Your task to perform on an android device: Show me popular games on the Play Store Image 0: 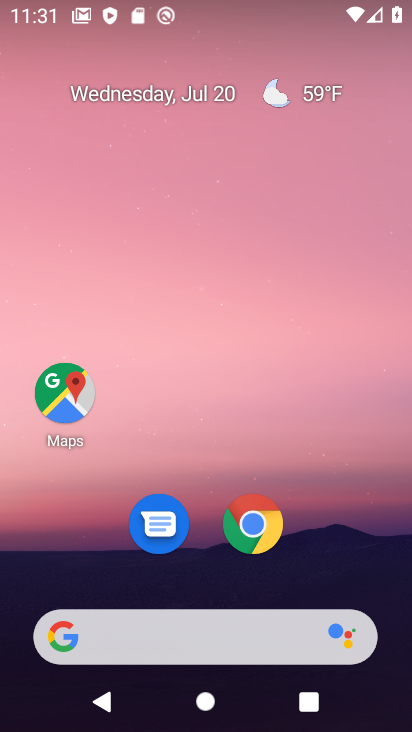
Step 0: press home button
Your task to perform on an android device: Show me popular games on the Play Store Image 1: 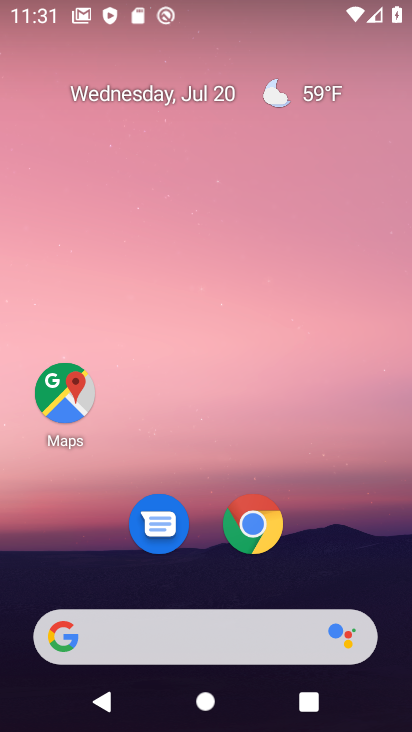
Step 1: drag from (199, 630) to (261, 34)
Your task to perform on an android device: Show me popular games on the Play Store Image 2: 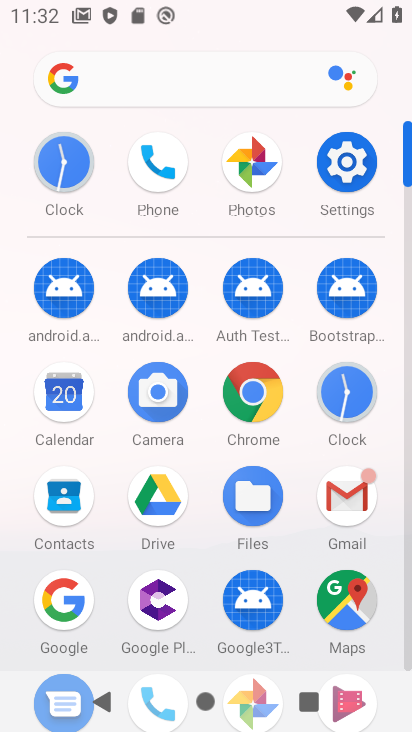
Step 2: drag from (214, 563) to (247, 132)
Your task to perform on an android device: Show me popular games on the Play Store Image 3: 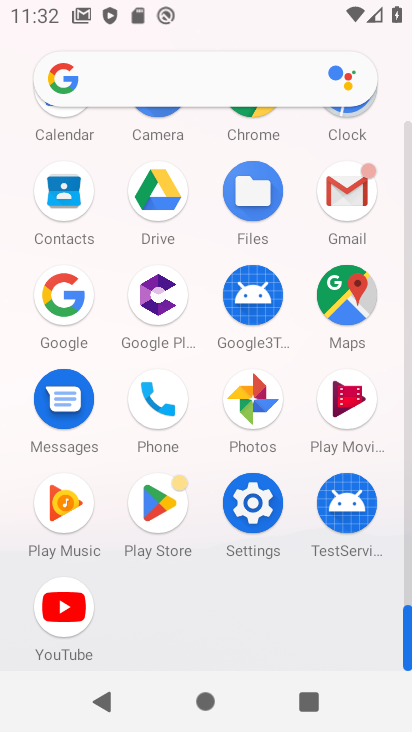
Step 3: click (154, 520)
Your task to perform on an android device: Show me popular games on the Play Store Image 4: 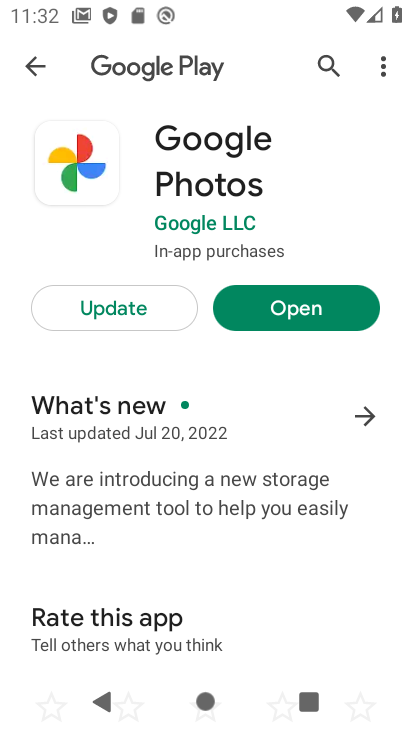
Step 4: click (35, 68)
Your task to perform on an android device: Show me popular games on the Play Store Image 5: 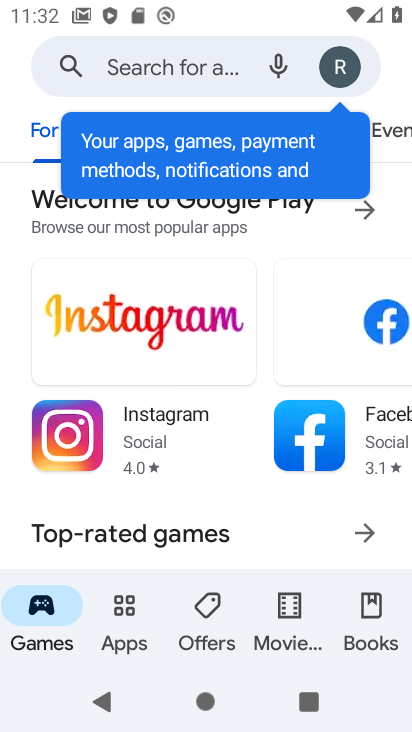
Step 5: drag from (206, 554) to (302, 194)
Your task to perform on an android device: Show me popular games on the Play Store Image 6: 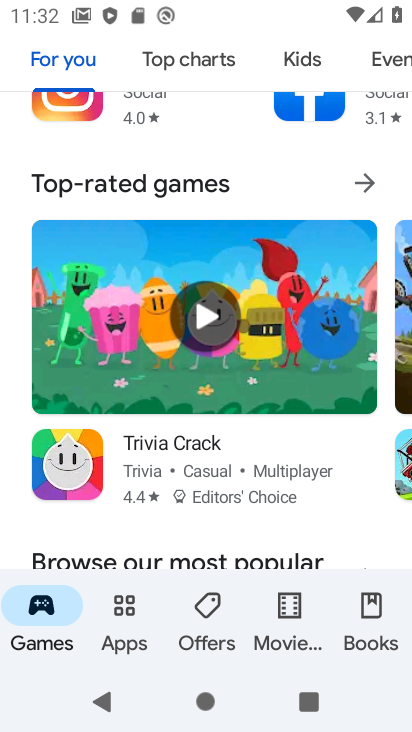
Step 6: drag from (245, 515) to (270, 274)
Your task to perform on an android device: Show me popular games on the Play Store Image 7: 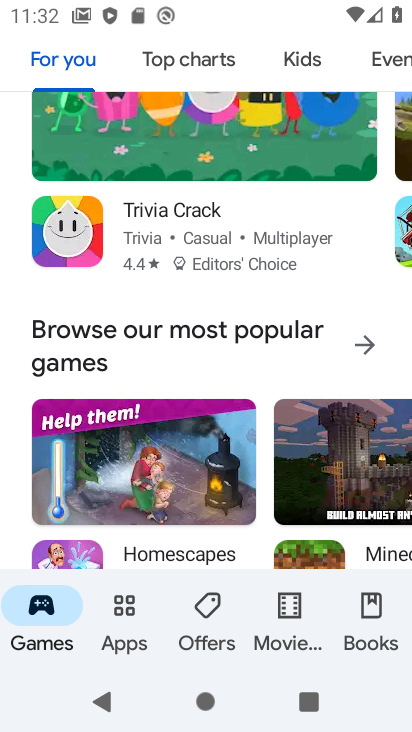
Step 7: click (359, 347)
Your task to perform on an android device: Show me popular games on the Play Store Image 8: 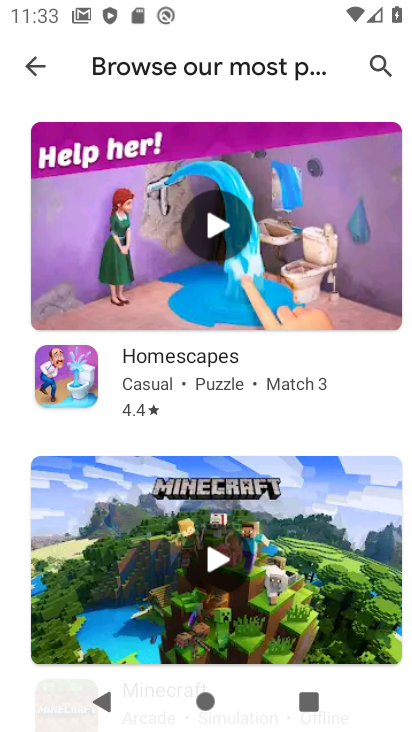
Step 8: task complete